Your task to perform on an android device: turn on location history Image 0: 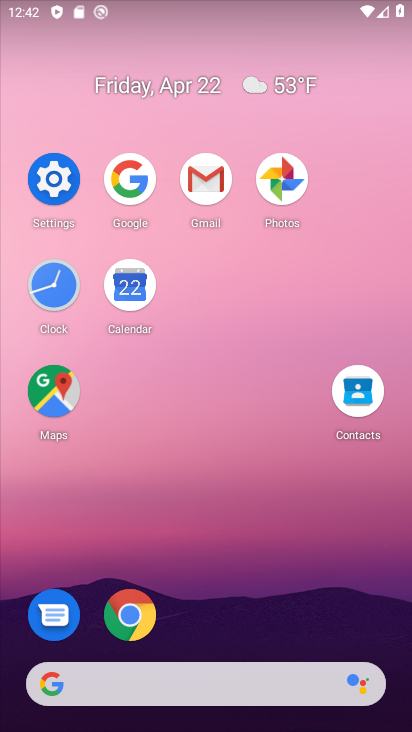
Step 0: click (70, 166)
Your task to perform on an android device: turn on location history Image 1: 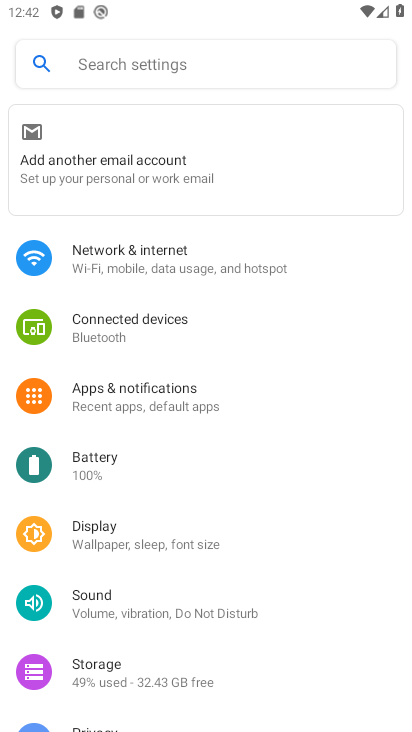
Step 1: drag from (234, 652) to (231, 227)
Your task to perform on an android device: turn on location history Image 2: 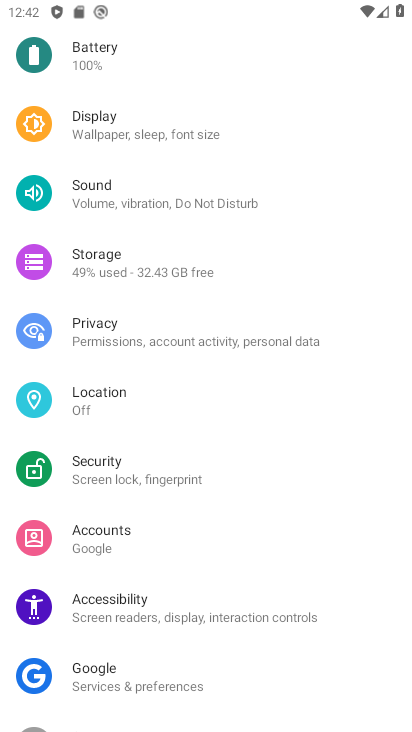
Step 2: click (117, 394)
Your task to perform on an android device: turn on location history Image 3: 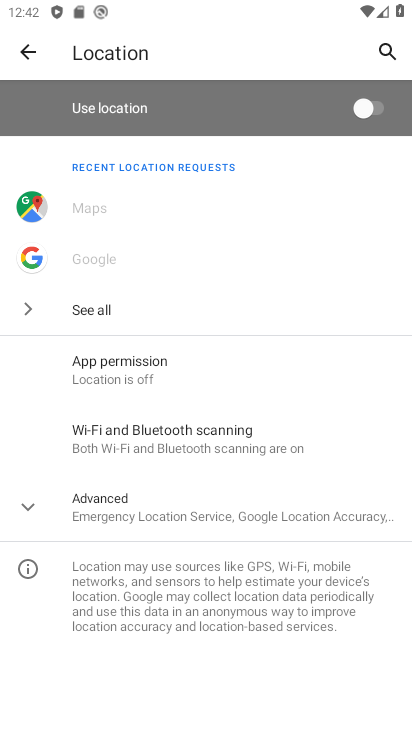
Step 3: click (100, 498)
Your task to perform on an android device: turn on location history Image 4: 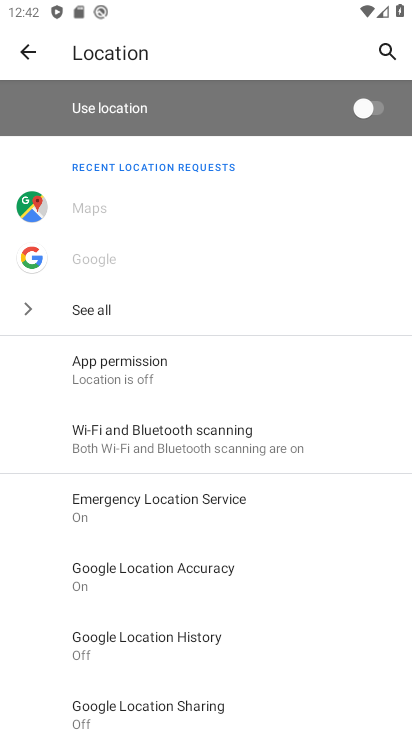
Step 4: click (169, 628)
Your task to perform on an android device: turn on location history Image 5: 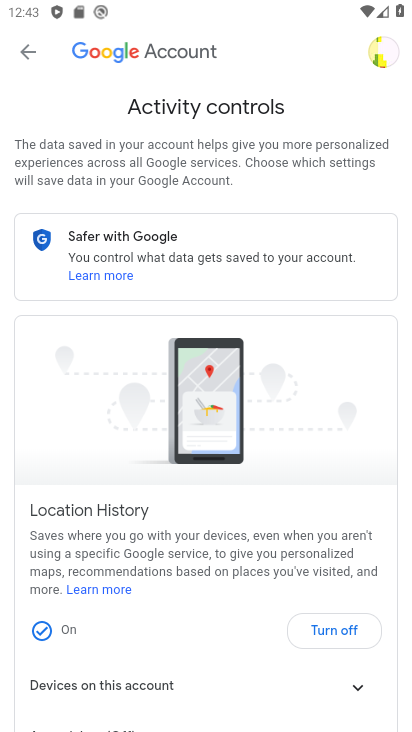
Step 5: press home button
Your task to perform on an android device: turn on location history Image 6: 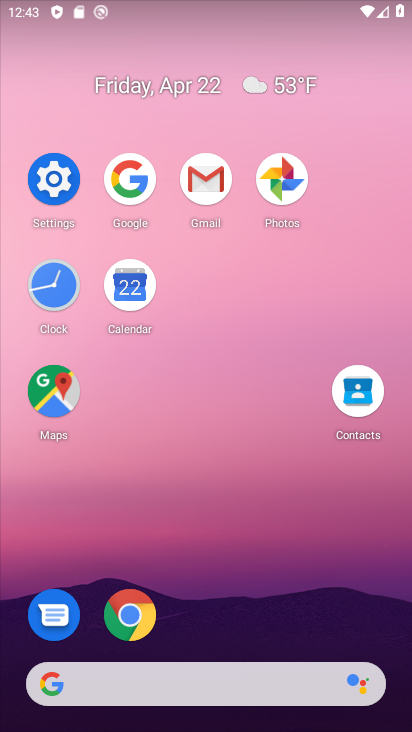
Step 6: click (54, 167)
Your task to perform on an android device: turn on location history Image 7: 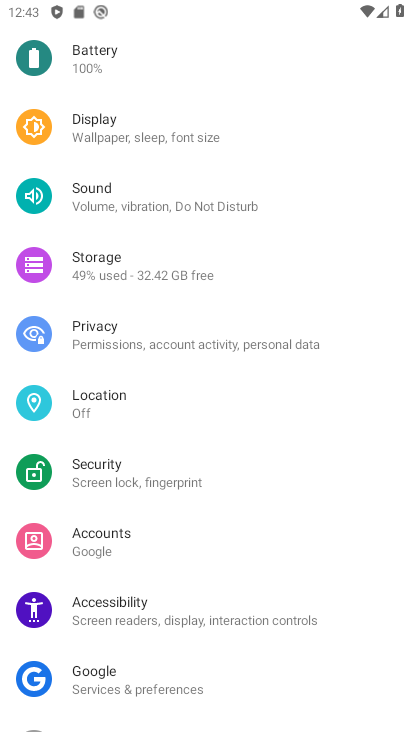
Step 7: click (139, 417)
Your task to perform on an android device: turn on location history Image 8: 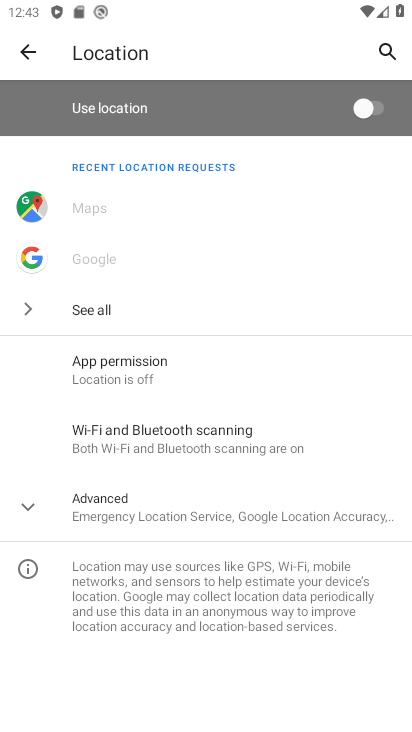
Step 8: click (181, 516)
Your task to perform on an android device: turn on location history Image 9: 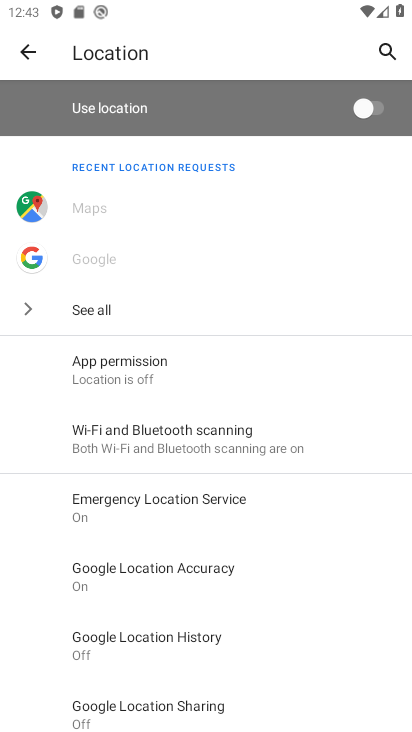
Step 9: click (192, 632)
Your task to perform on an android device: turn on location history Image 10: 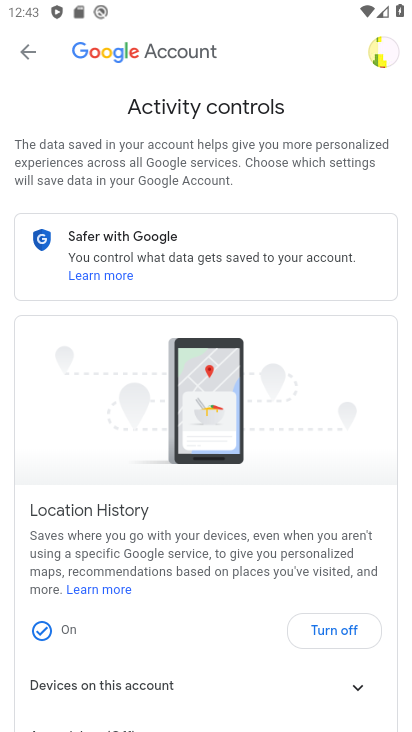
Step 10: task complete